Your task to perform on an android device: toggle javascript in the chrome app Image 0: 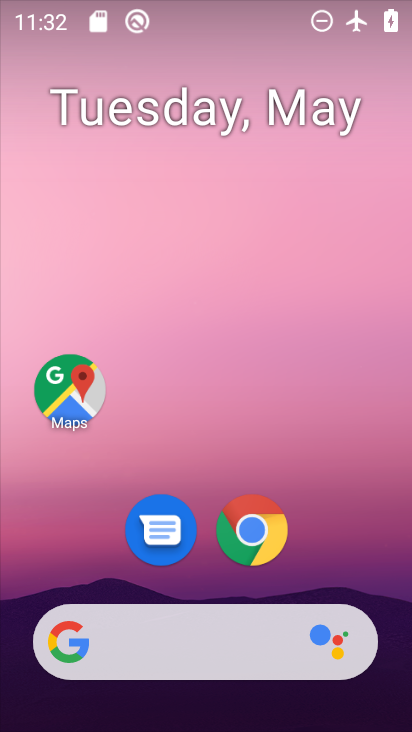
Step 0: drag from (301, 496) to (297, 127)
Your task to perform on an android device: toggle javascript in the chrome app Image 1: 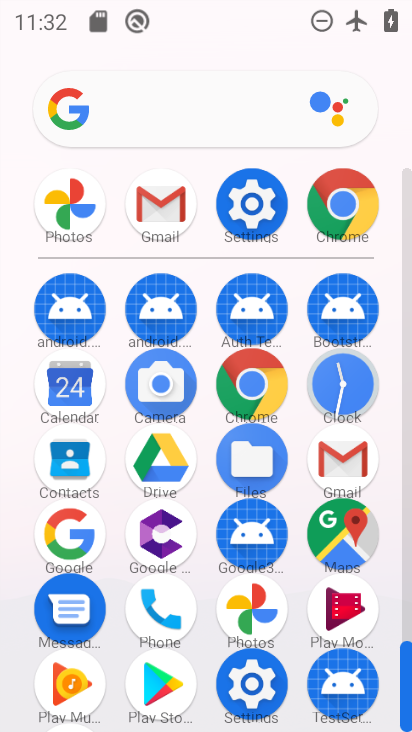
Step 1: click (254, 386)
Your task to perform on an android device: toggle javascript in the chrome app Image 2: 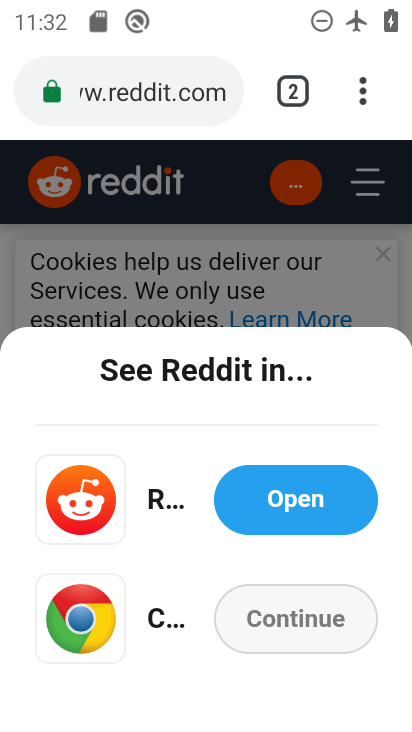
Step 2: drag from (364, 100) to (207, 559)
Your task to perform on an android device: toggle javascript in the chrome app Image 3: 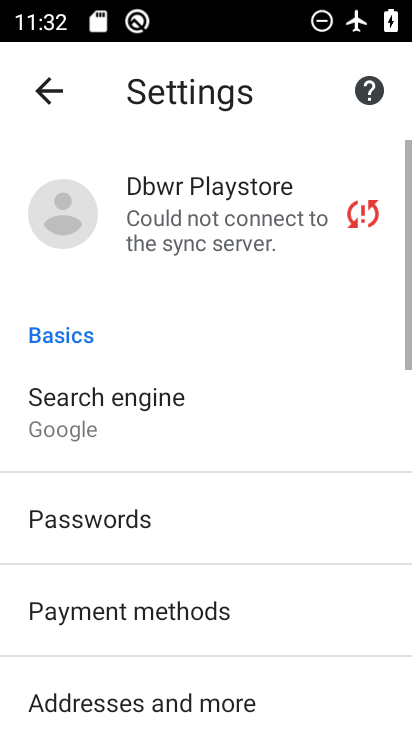
Step 3: drag from (245, 594) to (280, 234)
Your task to perform on an android device: toggle javascript in the chrome app Image 4: 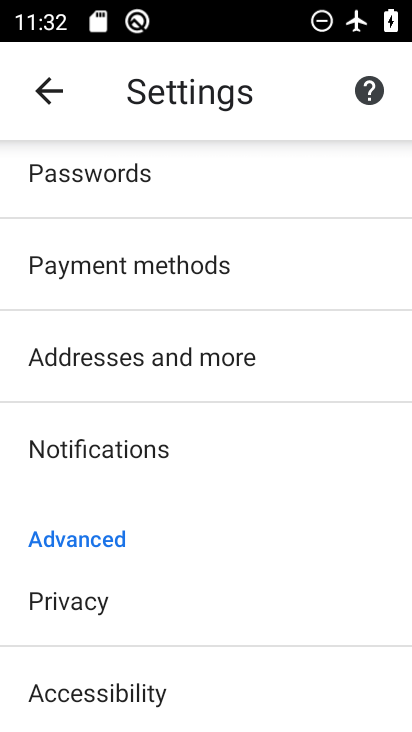
Step 4: drag from (203, 617) to (292, 295)
Your task to perform on an android device: toggle javascript in the chrome app Image 5: 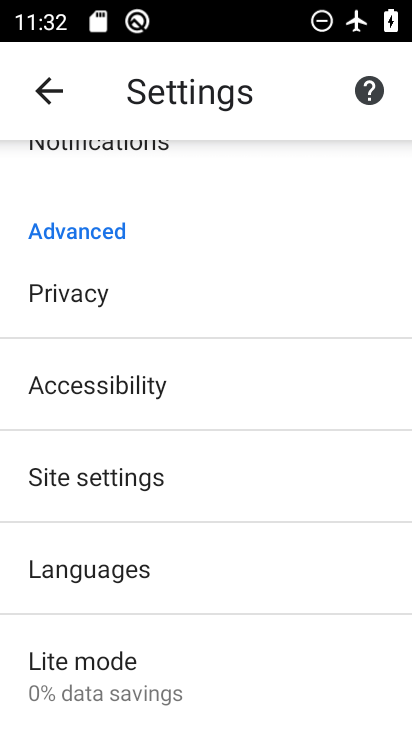
Step 5: click (140, 479)
Your task to perform on an android device: toggle javascript in the chrome app Image 6: 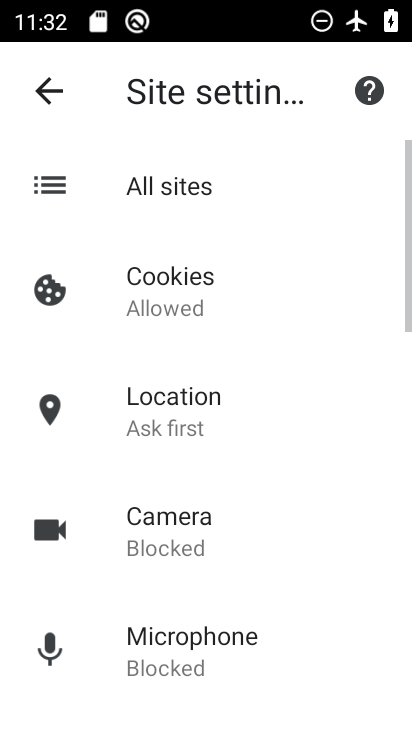
Step 6: drag from (296, 630) to (351, 116)
Your task to perform on an android device: toggle javascript in the chrome app Image 7: 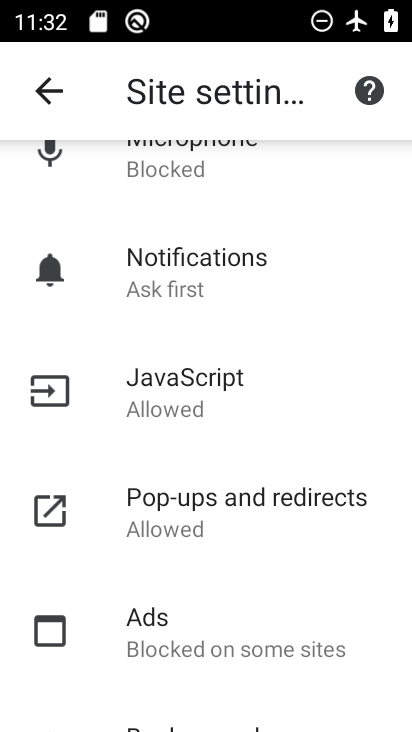
Step 7: click (205, 379)
Your task to perform on an android device: toggle javascript in the chrome app Image 8: 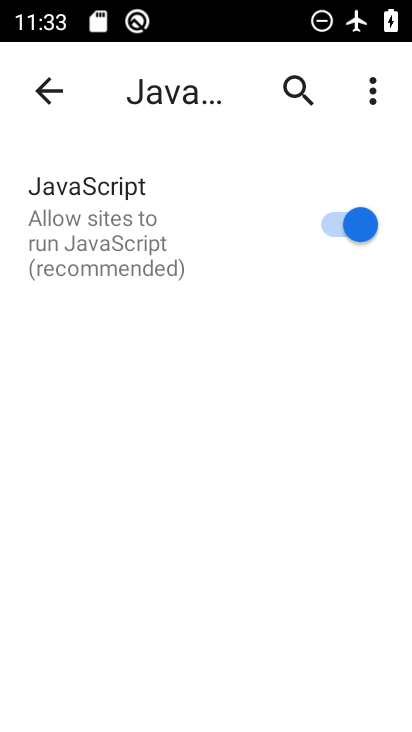
Step 8: click (354, 234)
Your task to perform on an android device: toggle javascript in the chrome app Image 9: 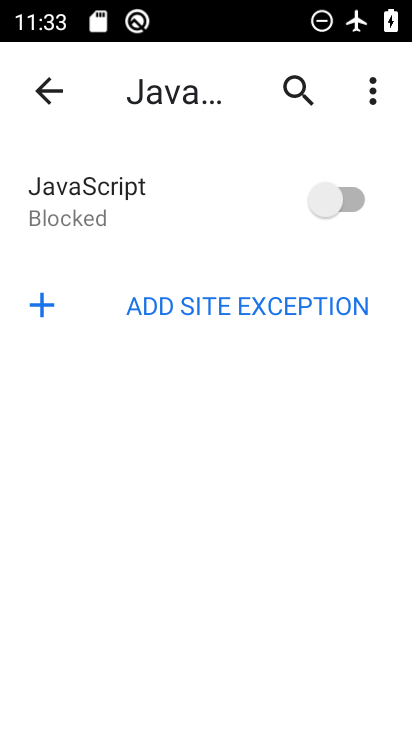
Step 9: task complete